Your task to perform on an android device: set default search engine in the chrome app Image 0: 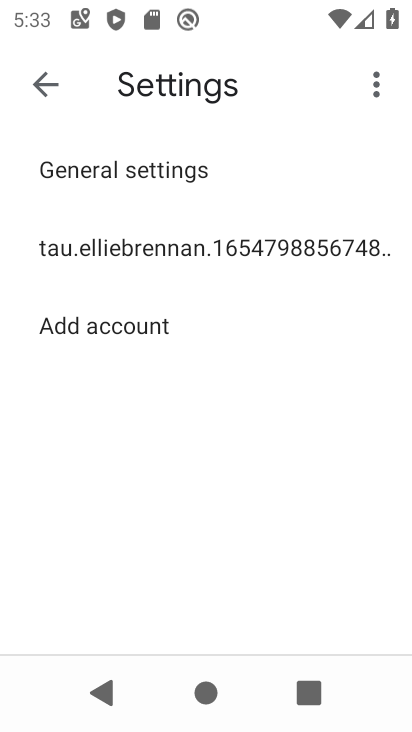
Step 0: drag from (226, 391) to (285, 220)
Your task to perform on an android device: set default search engine in the chrome app Image 1: 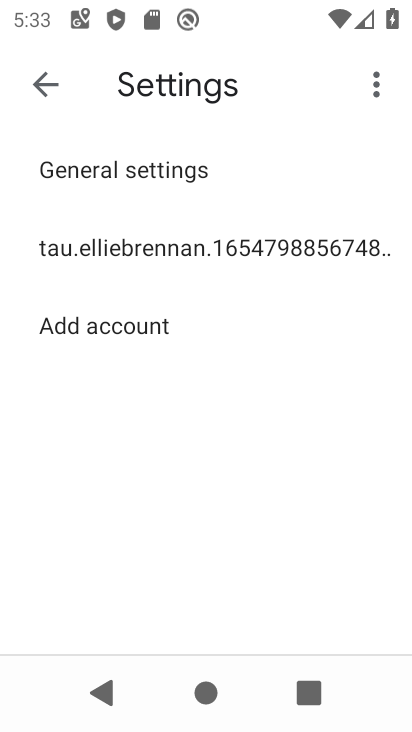
Step 1: press home button
Your task to perform on an android device: set default search engine in the chrome app Image 2: 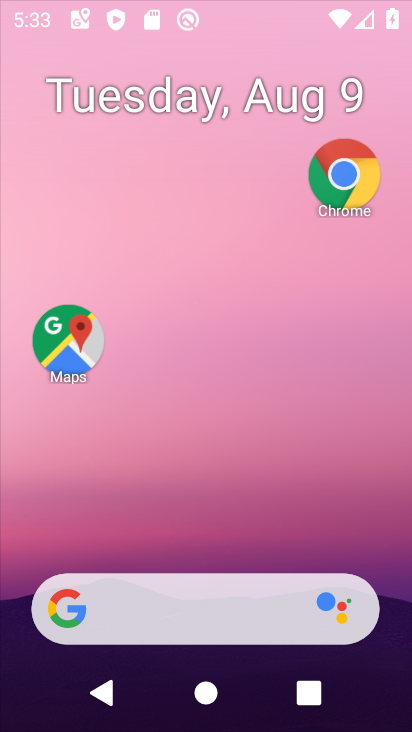
Step 2: drag from (225, 541) to (321, 99)
Your task to perform on an android device: set default search engine in the chrome app Image 3: 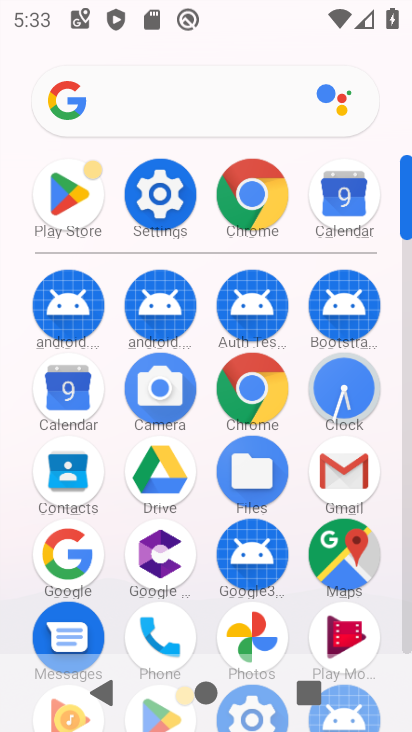
Step 3: click (247, 194)
Your task to perform on an android device: set default search engine in the chrome app Image 4: 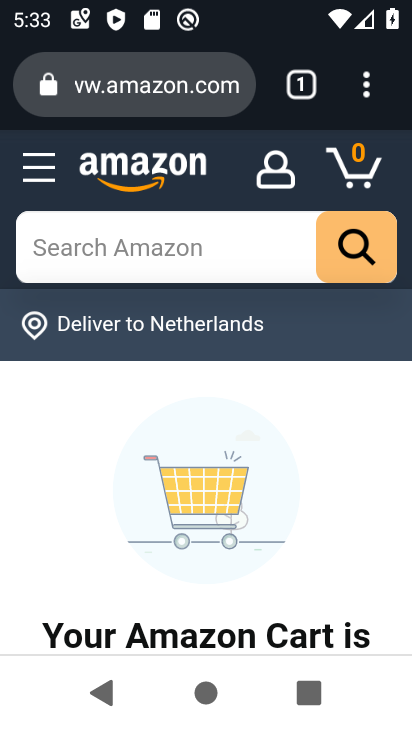
Step 4: drag from (368, 78) to (121, 515)
Your task to perform on an android device: set default search engine in the chrome app Image 5: 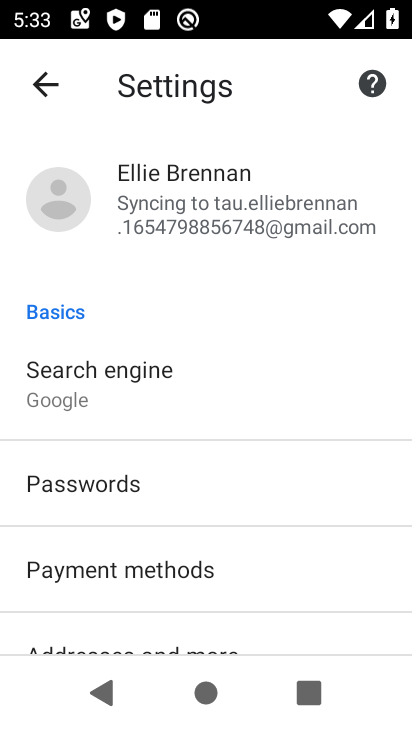
Step 5: drag from (146, 555) to (249, 266)
Your task to perform on an android device: set default search engine in the chrome app Image 6: 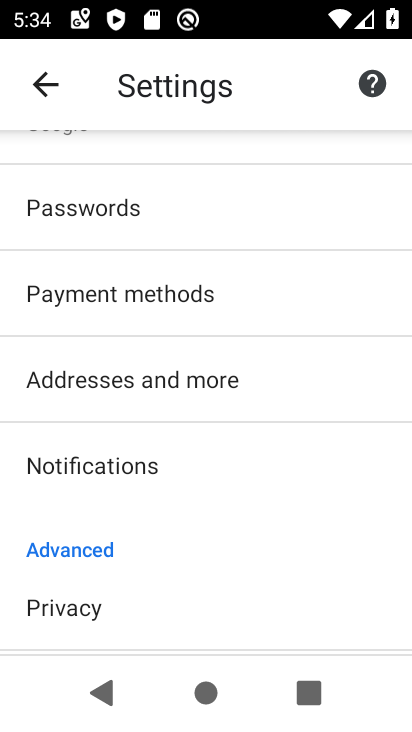
Step 6: drag from (125, 581) to (172, 279)
Your task to perform on an android device: set default search engine in the chrome app Image 7: 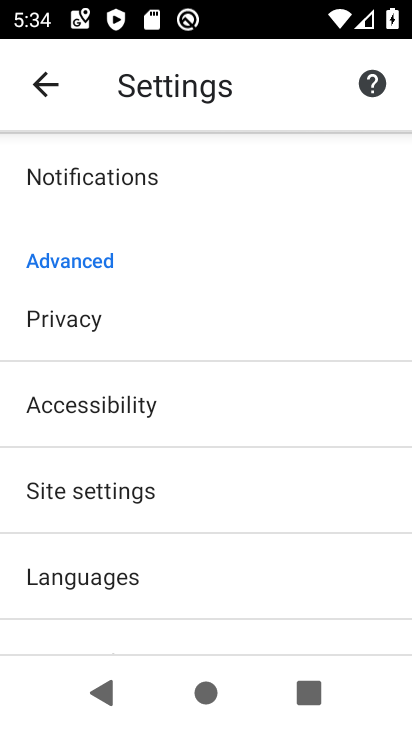
Step 7: drag from (162, 606) to (205, 441)
Your task to perform on an android device: set default search engine in the chrome app Image 8: 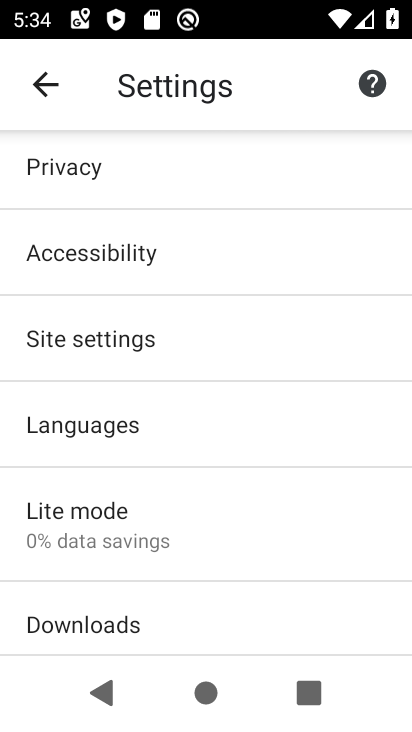
Step 8: drag from (170, 595) to (183, 473)
Your task to perform on an android device: set default search engine in the chrome app Image 9: 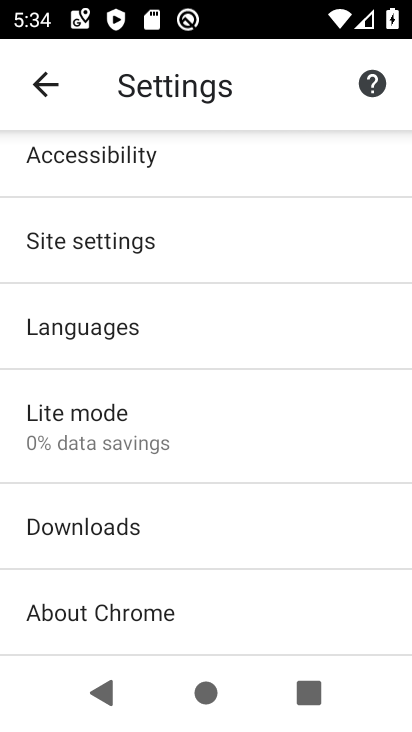
Step 9: click (157, 429)
Your task to perform on an android device: set default search engine in the chrome app Image 10: 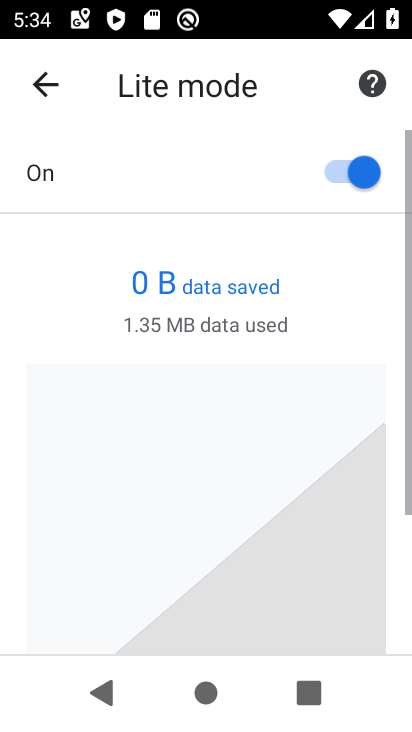
Step 10: drag from (212, 628) to (253, 460)
Your task to perform on an android device: set default search engine in the chrome app Image 11: 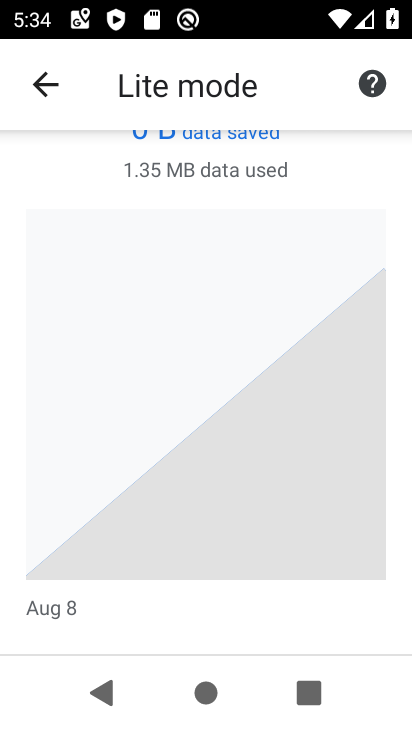
Step 11: drag from (118, 599) to (262, 298)
Your task to perform on an android device: set default search engine in the chrome app Image 12: 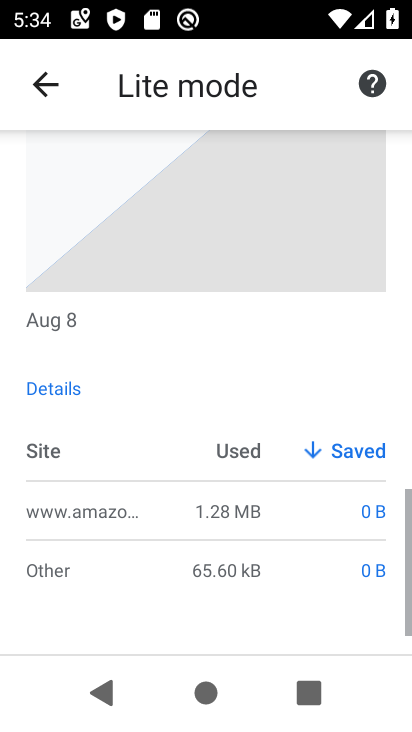
Step 12: drag from (261, 176) to (242, 671)
Your task to perform on an android device: set default search engine in the chrome app Image 13: 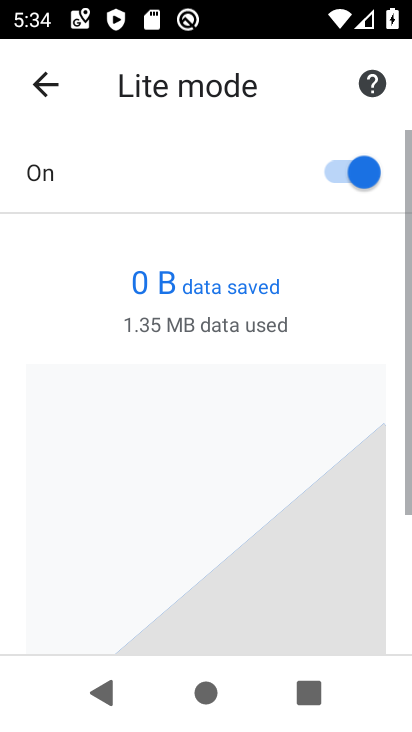
Step 13: drag from (222, 243) to (306, 511)
Your task to perform on an android device: set default search engine in the chrome app Image 14: 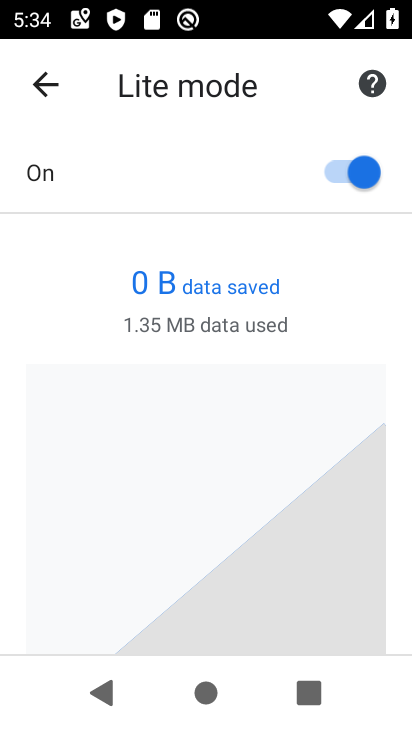
Step 14: click (54, 94)
Your task to perform on an android device: set default search engine in the chrome app Image 15: 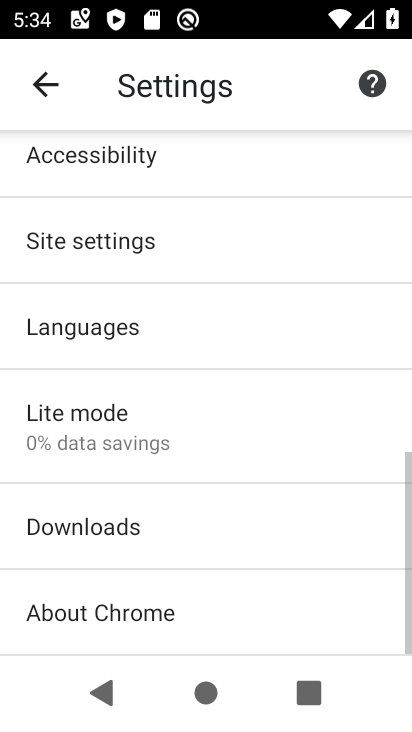
Step 15: drag from (177, 276) to (200, 690)
Your task to perform on an android device: set default search engine in the chrome app Image 16: 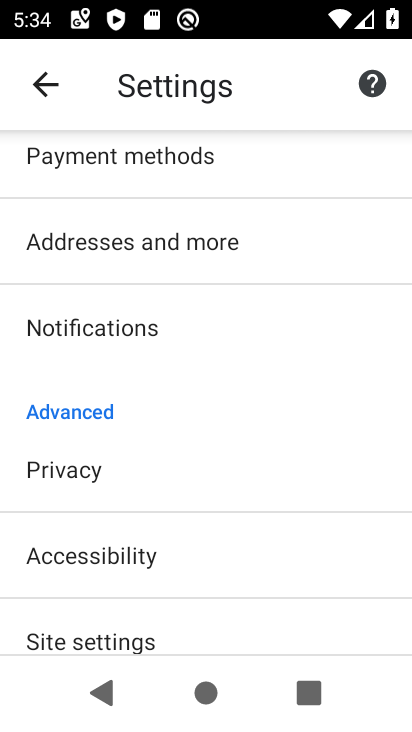
Step 16: drag from (187, 298) to (239, 642)
Your task to perform on an android device: set default search engine in the chrome app Image 17: 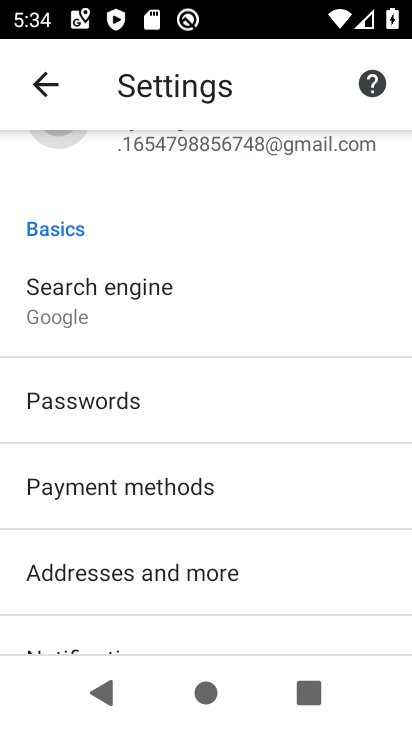
Step 17: drag from (177, 333) to (260, 630)
Your task to perform on an android device: set default search engine in the chrome app Image 18: 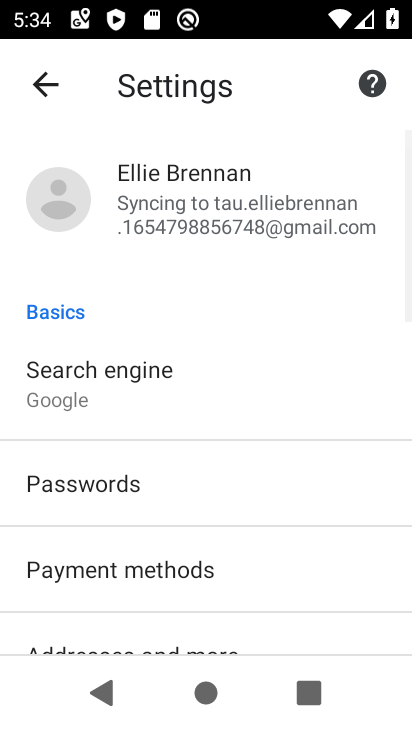
Step 18: drag from (247, 603) to (288, 330)
Your task to perform on an android device: set default search engine in the chrome app Image 19: 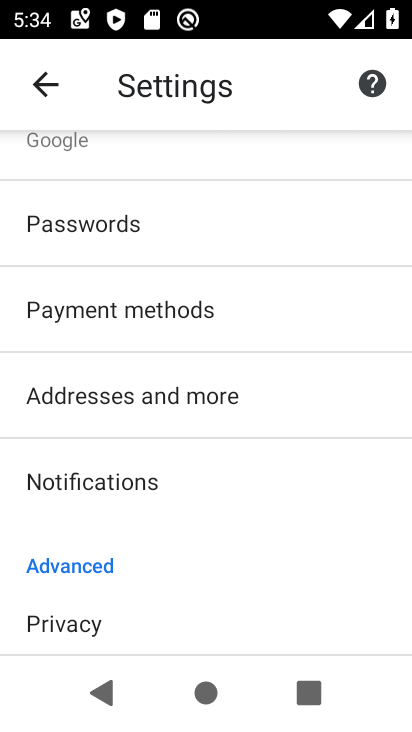
Step 19: drag from (243, 573) to (227, 336)
Your task to perform on an android device: set default search engine in the chrome app Image 20: 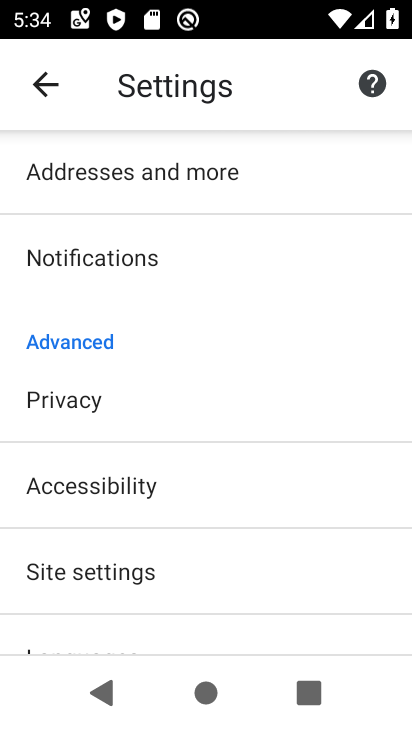
Step 20: drag from (226, 600) to (276, 186)
Your task to perform on an android device: set default search engine in the chrome app Image 21: 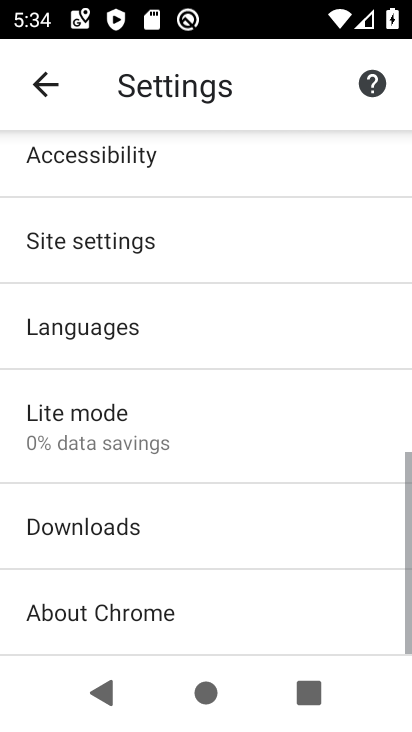
Step 21: drag from (158, 534) to (150, 397)
Your task to perform on an android device: set default search engine in the chrome app Image 22: 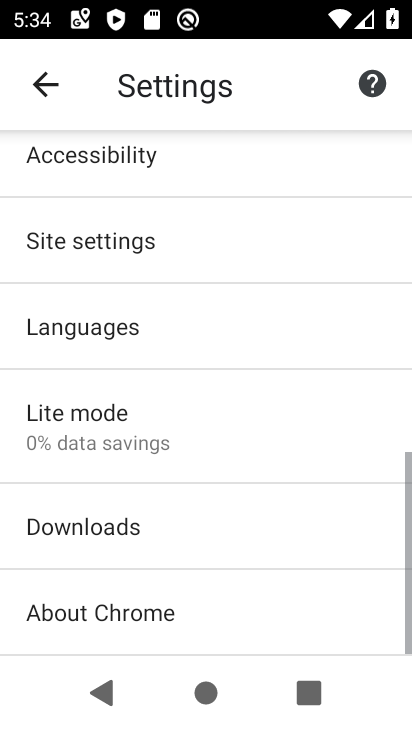
Step 22: click (101, 421)
Your task to perform on an android device: set default search engine in the chrome app Image 23: 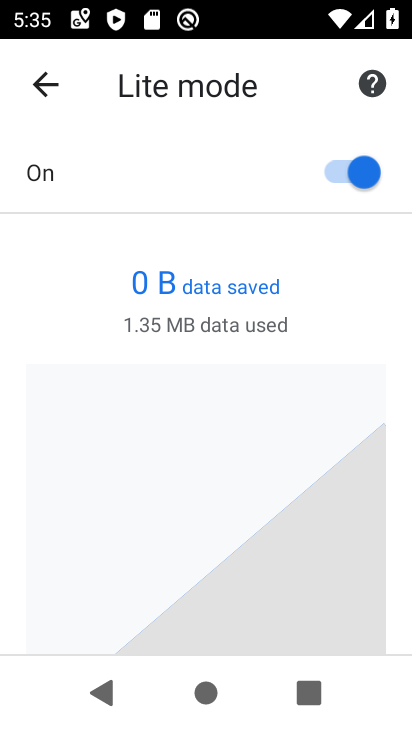
Step 23: click (32, 94)
Your task to perform on an android device: set default search engine in the chrome app Image 24: 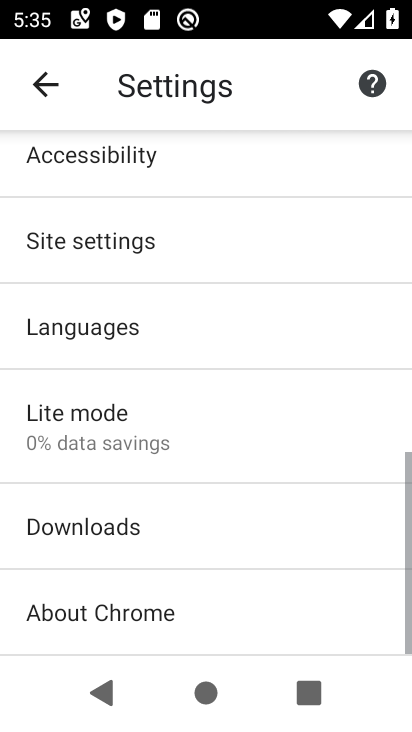
Step 24: drag from (137, 243) to (207, 727)
Your task to perform on an android device: set default search engine in the chrome app Image 25: 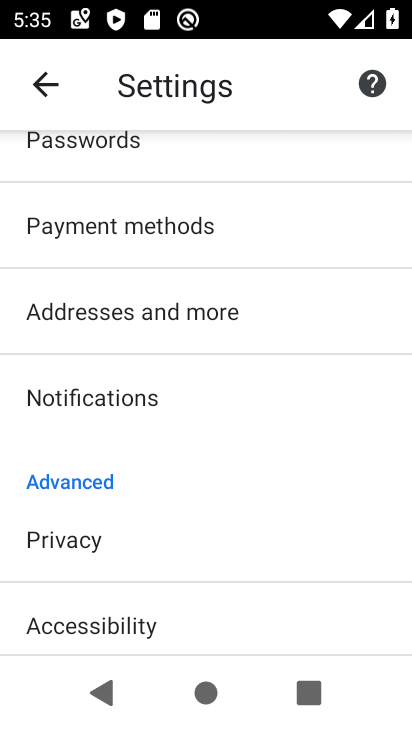
Step 25: drag from (191, 226) to (339, 728)
Your task to perform on an android device: set default search engine in the chrome app Image 26: 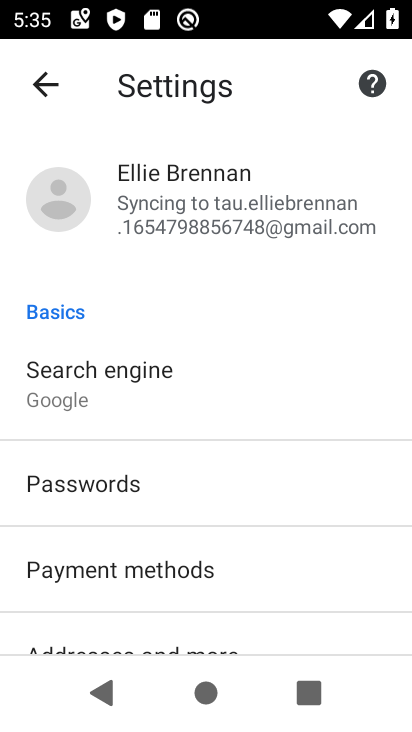
Step 26: click (162, 390)
Your task to perform on an android device: set default search engine in the chrome app Image 27: 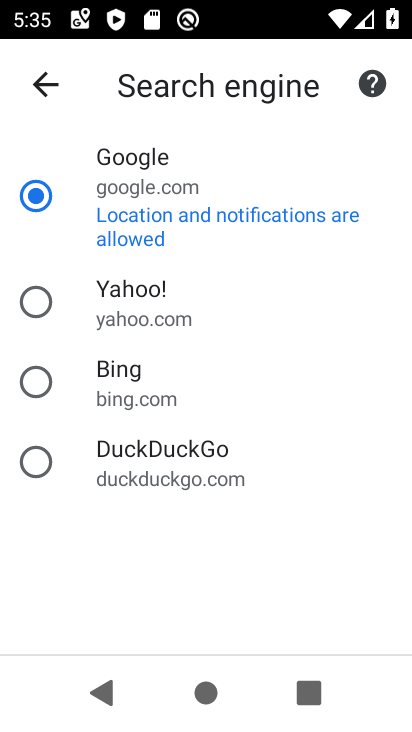
Step 27: task complete